Your task to perform on an android device: Find coffee shops on Maps Image 0: 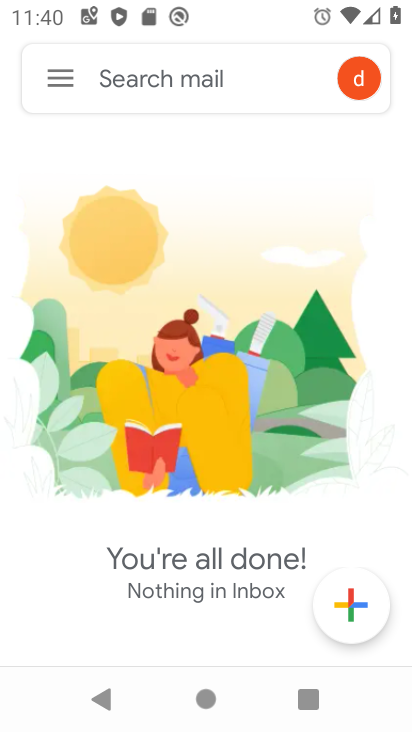
Step 0: press home button
Your task to perform on an android device: Find coffee shops on Maps Image 1: 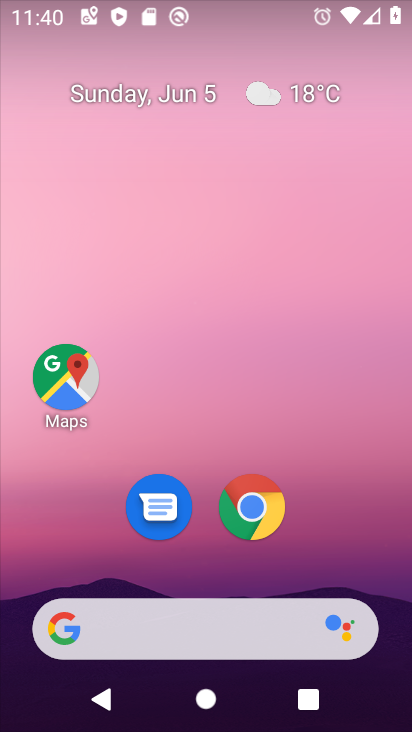
Step 1: drag from (230, 719) to (208, 1)
Your task to perform on an android device: Find coffee shops on Maps Image 2: 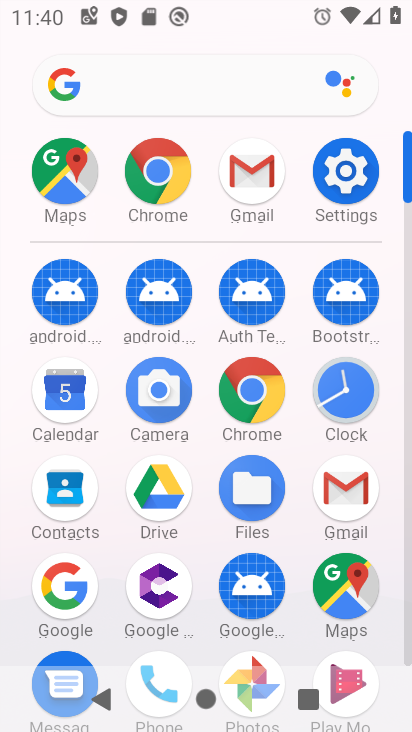
Step 2: click (352, 588)
Your task to perform on an android device: Find coffee shops on Maps Image 3: 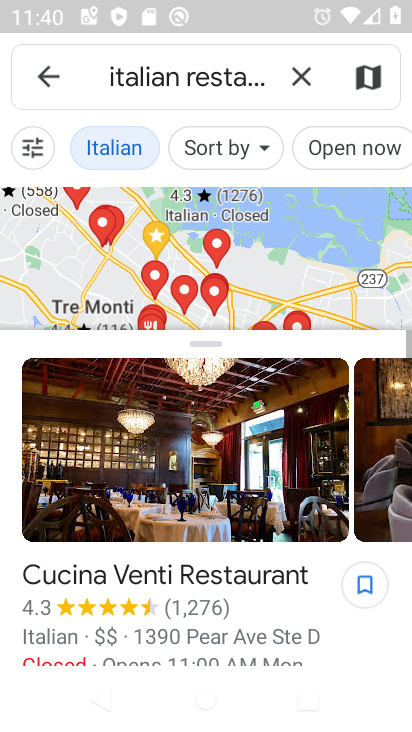
Step 3: click (294, 69)
Your task to perform on an android device: Find coffee shops on Maps Image 4: 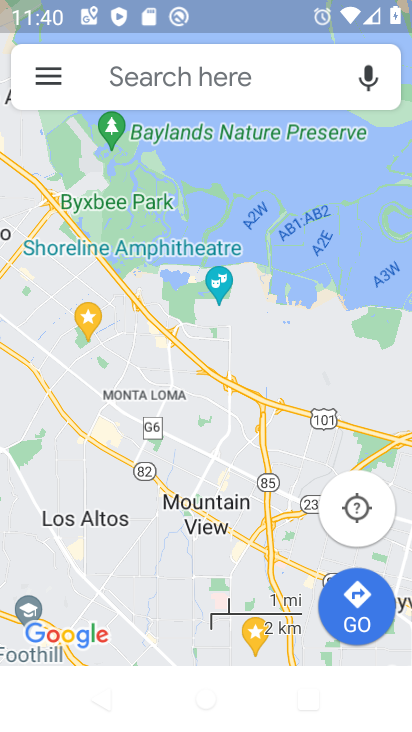
Step 4: click (213, 80)
Your task to perform on an android device: Find coffee shops on Maps Image 5: 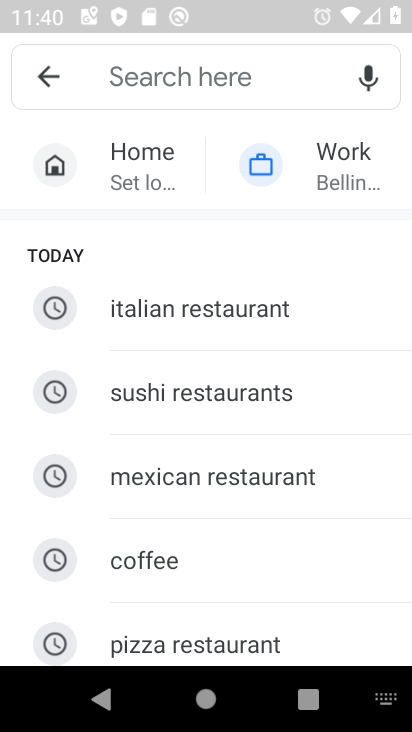
Step 5: type "coffee shops"
Your task to perform on an android device: Find coffee shops on Maps Image 6: 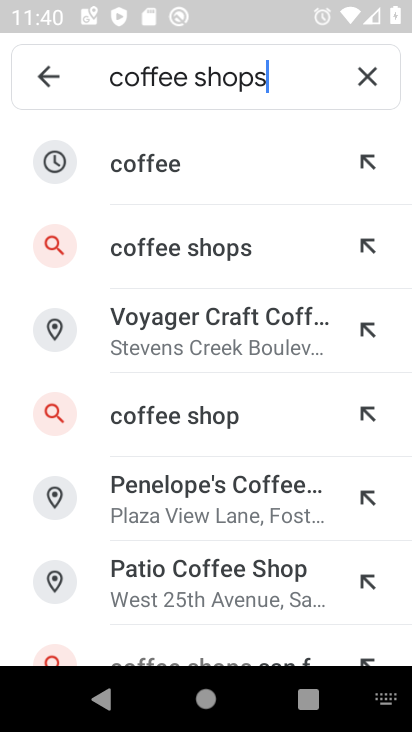
Step 6: click (201, 247)
Your task to perform on an android device: Find coffee shops on Maps Image 7: 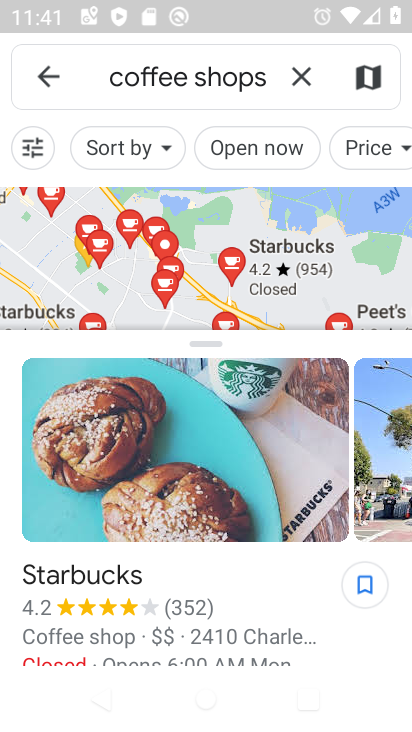
Step 7: task complete